Your task to perform on an android device: Go to battery settings Image 0: 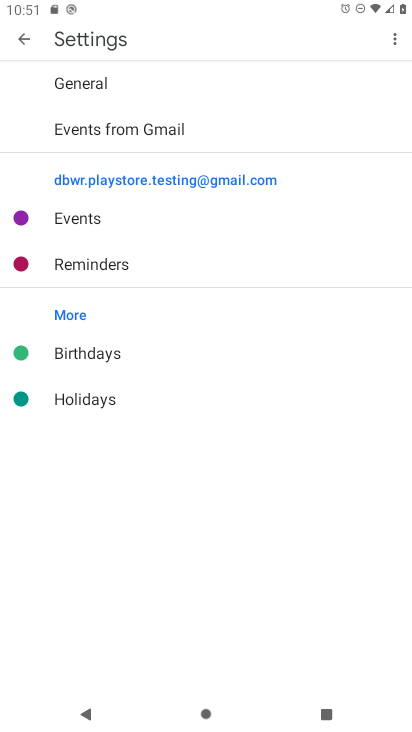
Step 0: press home button
Your task to perform on an android device: Go to battery settings Image 1: 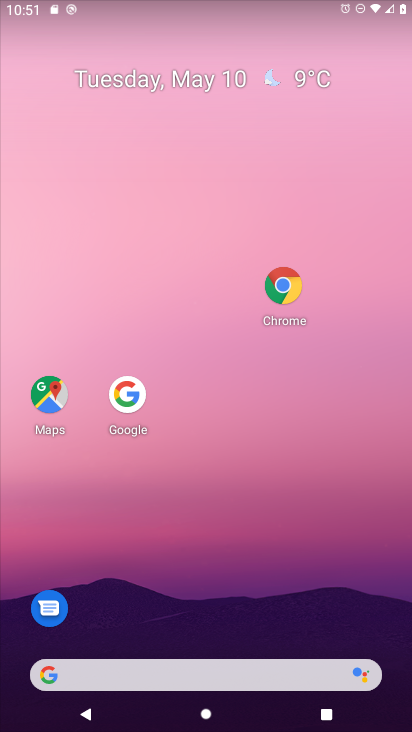
Step 1: drag from (198, 670) to (314, 230)
Your task to perform on an android device: Go to battery settings Image 2: 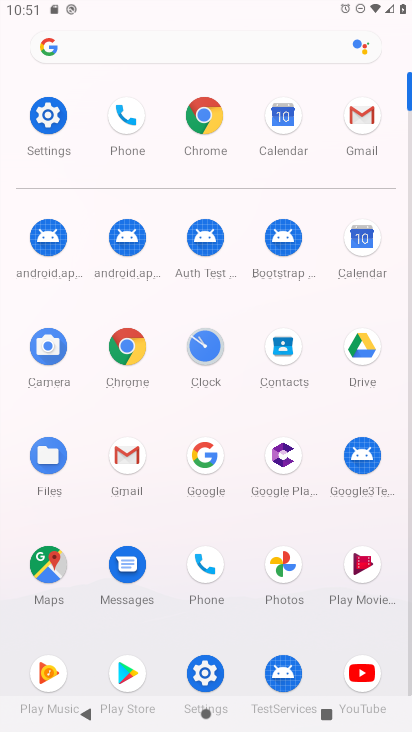
Step 2: click (56, 118)
Your task to perform on an android device: Go to battery settings Image 3: 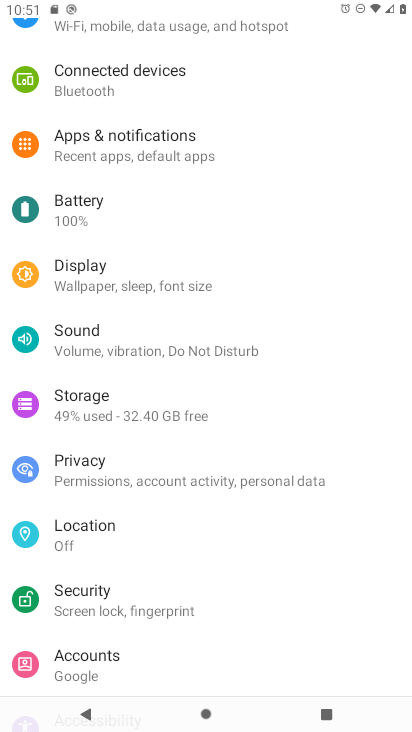
Step 3: click (87, 209)
Your task to perform on an android device: Go to battery settings Image 4: 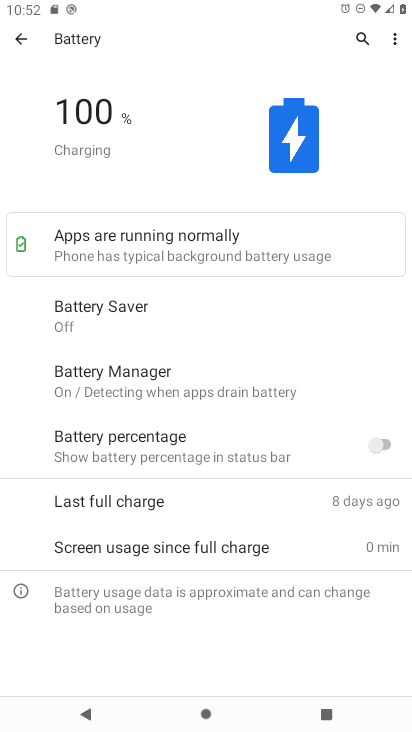
Step 4: task complete